Your task to perform on an android device: Show me popular games on the Play Store Image 0: 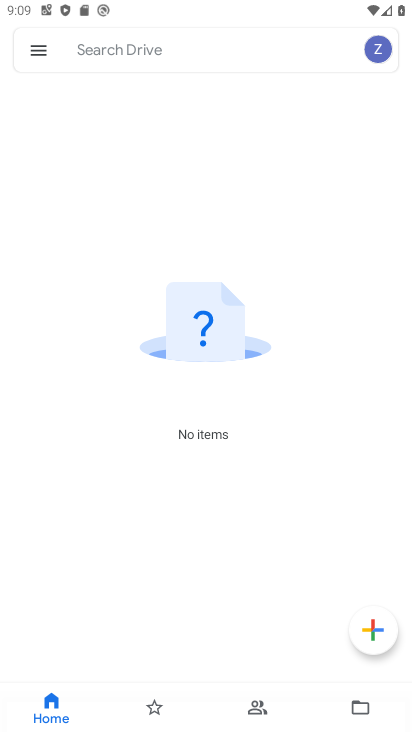
Step 0: press home button
Your task to perform on an android device: Show me popular games on the Play Store Image 1: 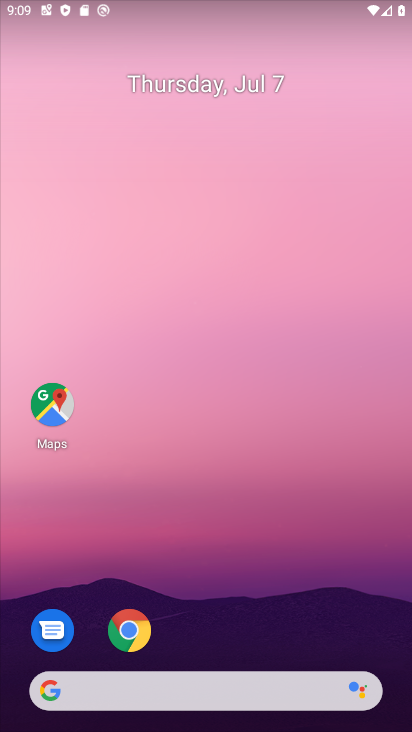
Step 1: drag from (237, 601) to (344, 85)
Your task to perform on an android device: Show me popular games on the Play Store Image 2: 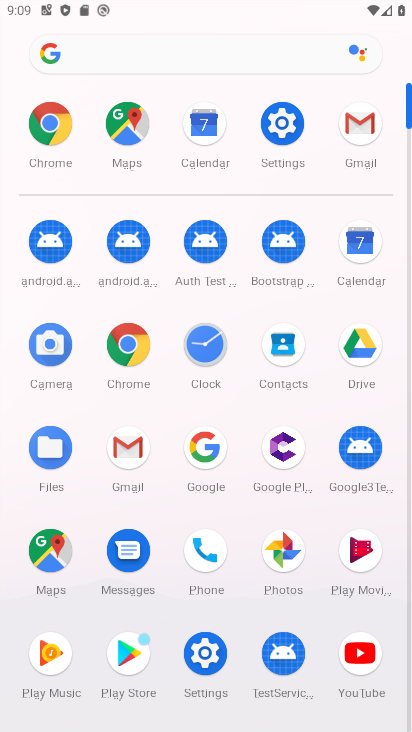
Step 2: click (118, 653)
Your task to perform on an android device: Show me popular games on the Play Store Image 3: 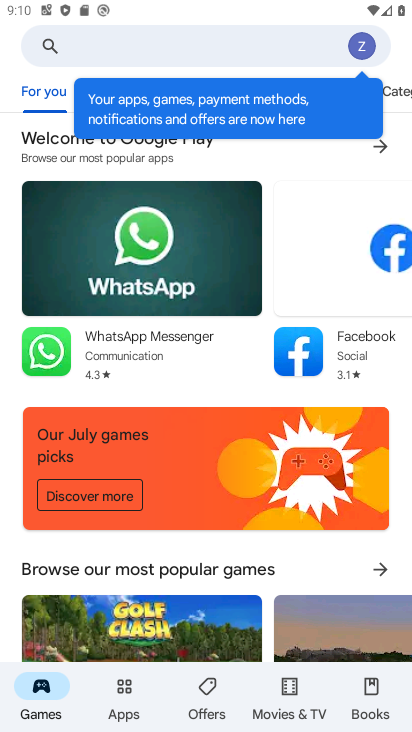
Step 3: click (262, 47)
Your task to perform on an android device: Show me popular games on the Play Store Image 4: 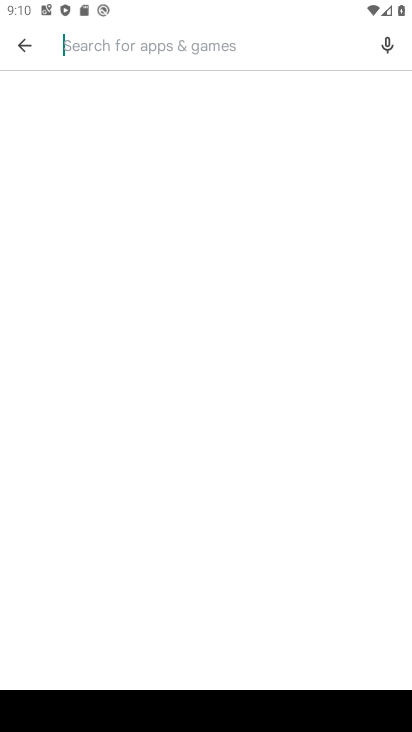
Step 4: type "populer games"
Your task to perform on an android device: Show me popular games on the Play Store Image 5: 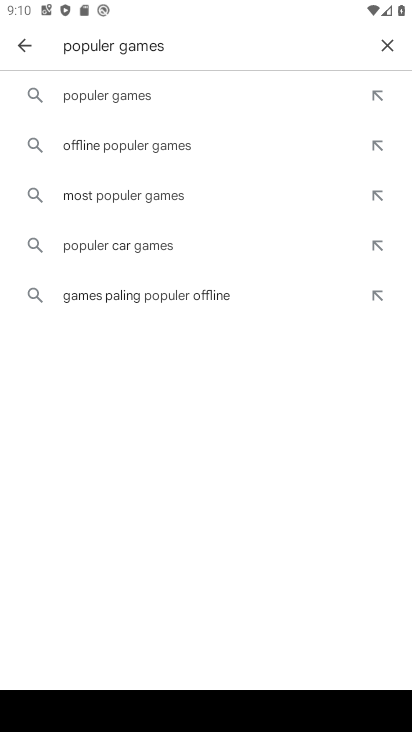
Step 5: click (121, 98)
Your task to perform on an android device: Show me popular games on the Play Store Image 6: 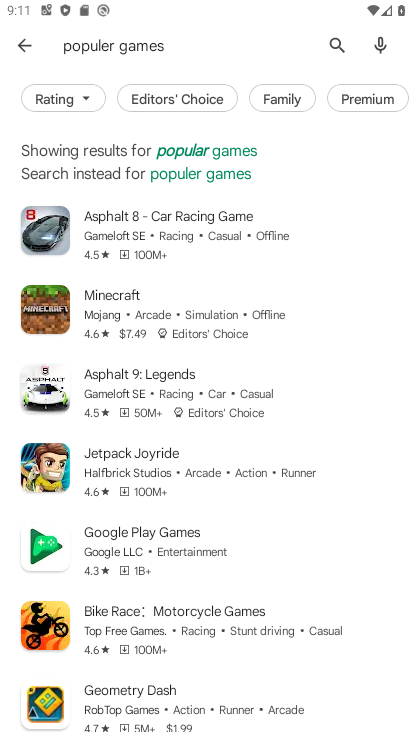
Step 6: task complete